Your task to perform on an android device: Open the web browser Image 0: 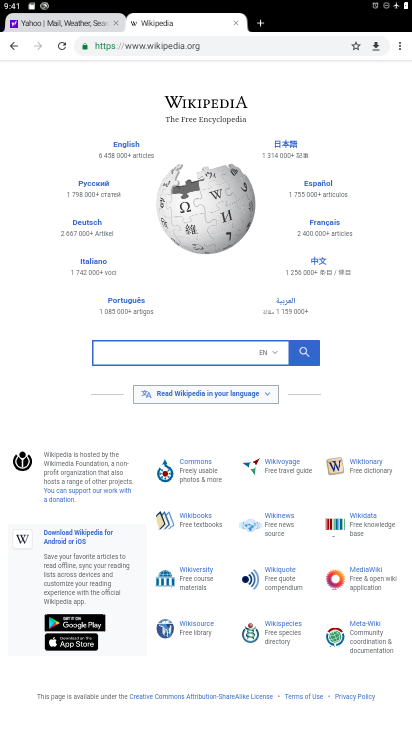
Step 0: press home button
Your task to perform on an android device: Open the web browser Image 1: 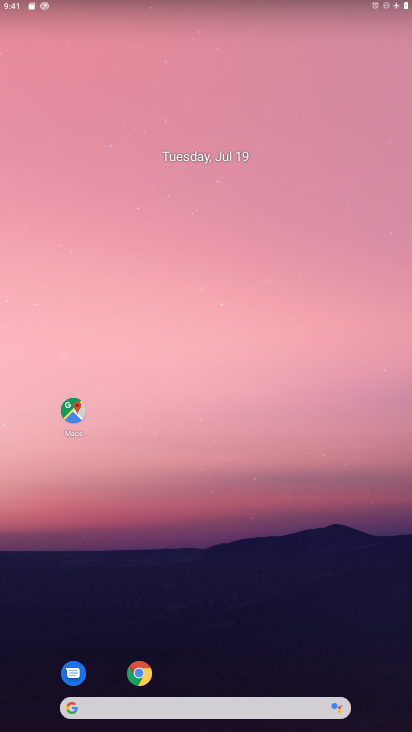
Step 1: click (135, 674)
Your task to perform on an android device: Open the web browser Image 2: 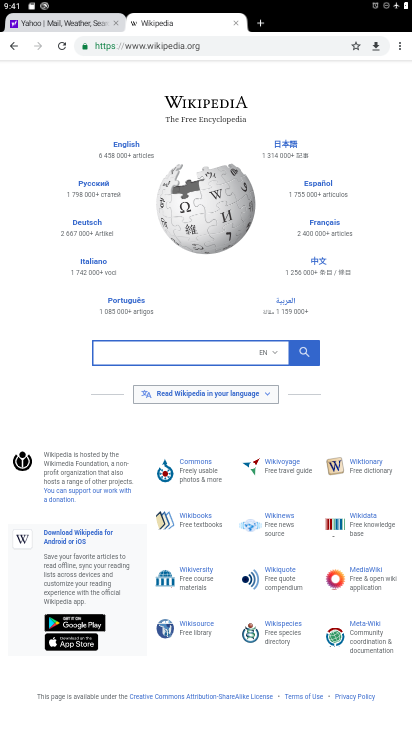
Step 2: task complete